Your task to perform on an android device: change keyboard looks Image 0: 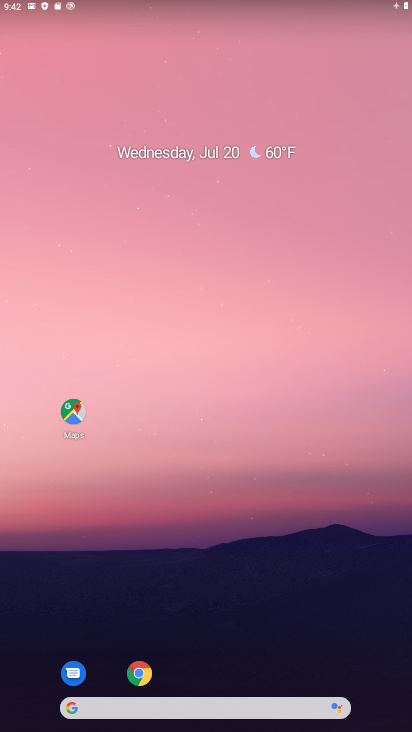
Step 0: drag from (220, 682) to (206, 81)
Your task to perform on an android device: change keyboard looks Image 1: 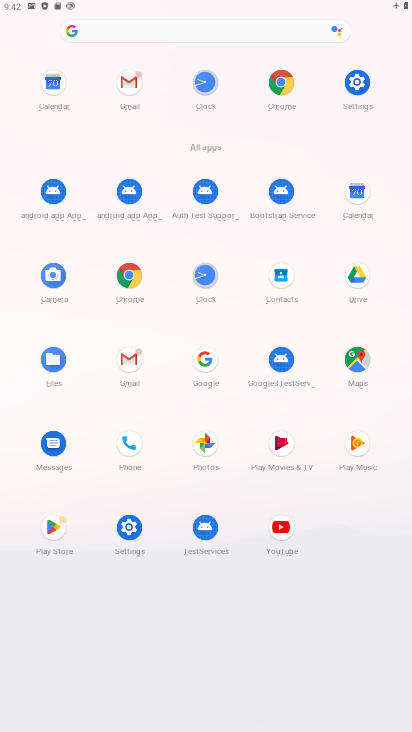
Step 1: click (138, 552)
Your task to perform on an android device: change keyboard looks Image 2: 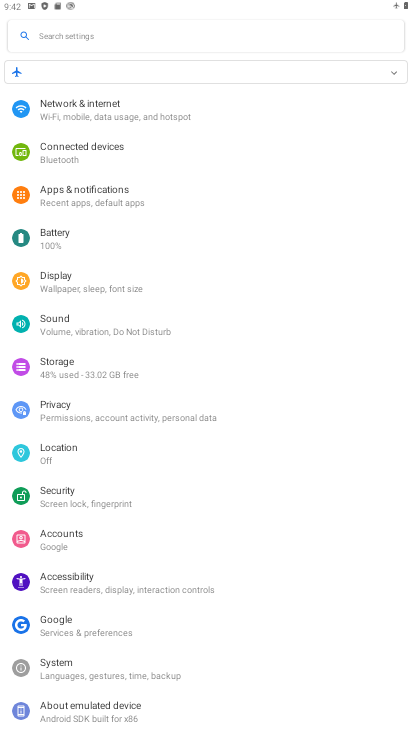
Step 2: drag from (146, 629) to (183, 415)
Your task to perform on an android device: change keyboard looks Image 3: 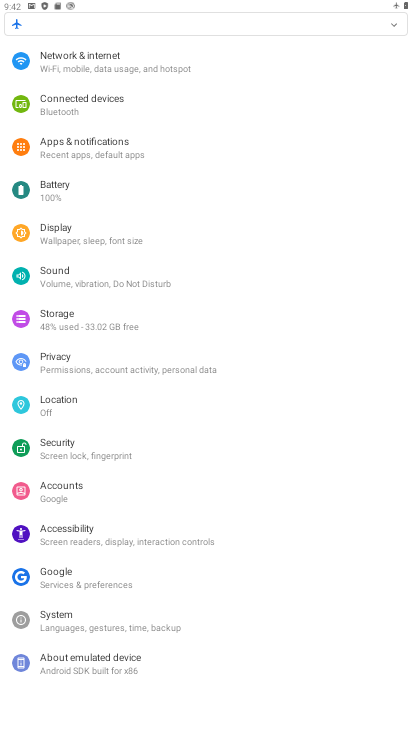
Step 3: click (78, 621)
Your task to perform on an android device: change keyboard looks Image 4: 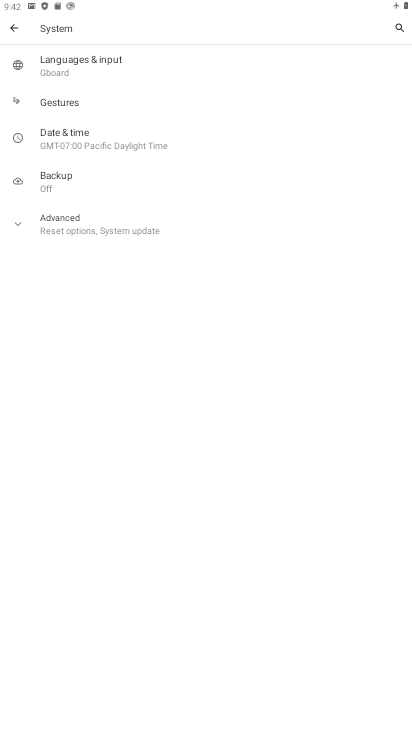
Step 4: click (114, 57)
Your task to perform on an android device: change keyboard looks Image 5: 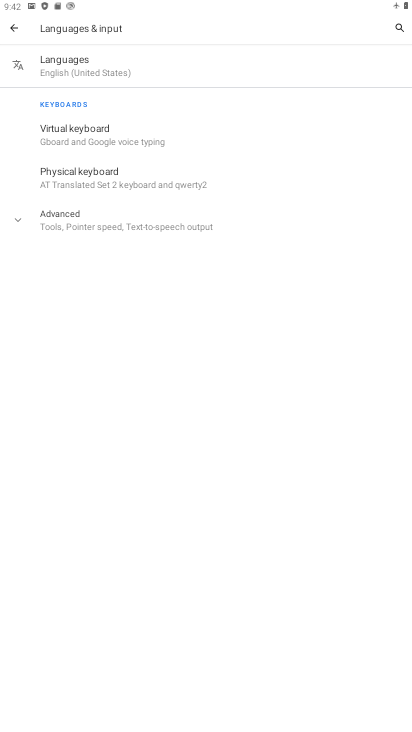
Step 5: click (99, 140)
Your task to perform on an android device: change keyboard looks Image 6: 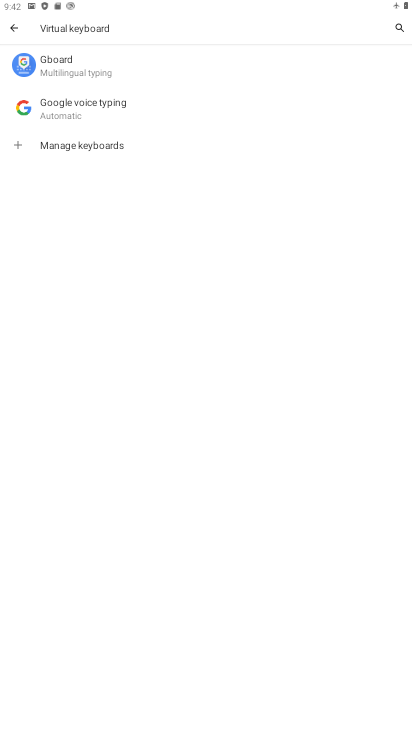
Step 6: click (73, 73)
Your task to perform on an android device: change keyboard looks Image 7: 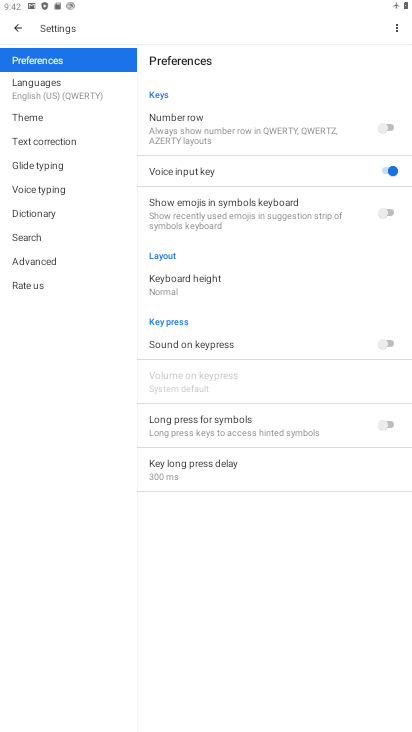
Step 7: click (48, 120)
Your task to perform on an android device: change keyboard looks Image 8: 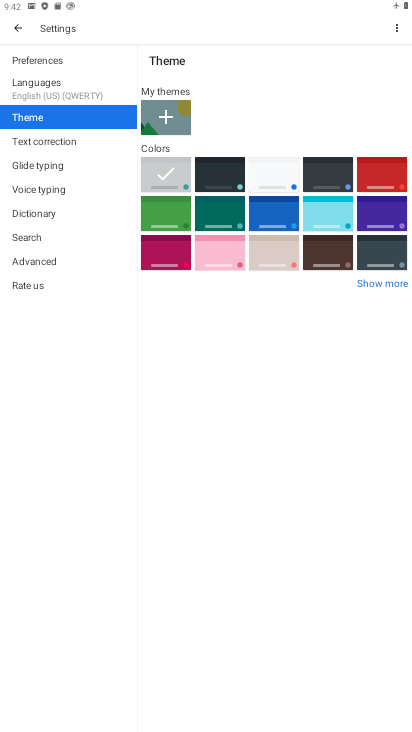
Step 8: click (164, 213)
Your task to perform on an android device: change keyboard looks Image 9: 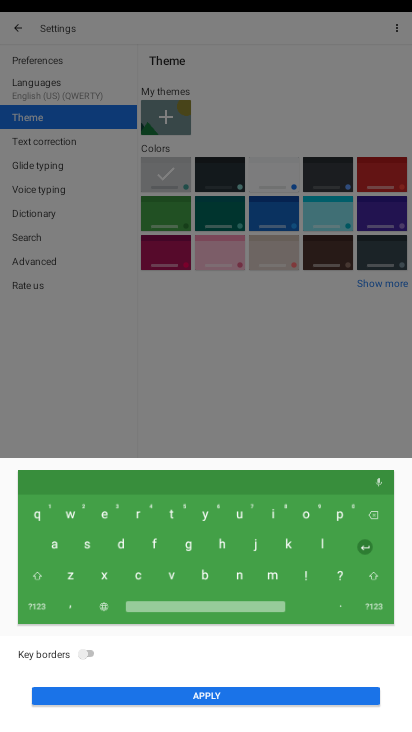
Step 9: click (257, 691)
Your task to perform on an android device: change keyboard looks Image 10: 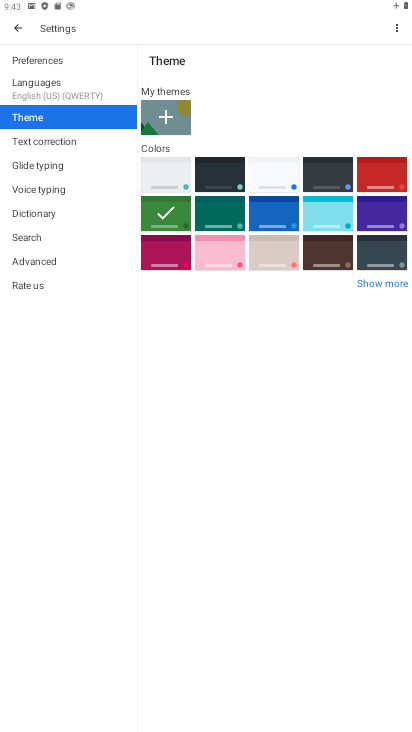
Step 10: task complete